Your task to perform on an android device: turn off sleep mode Image 0: 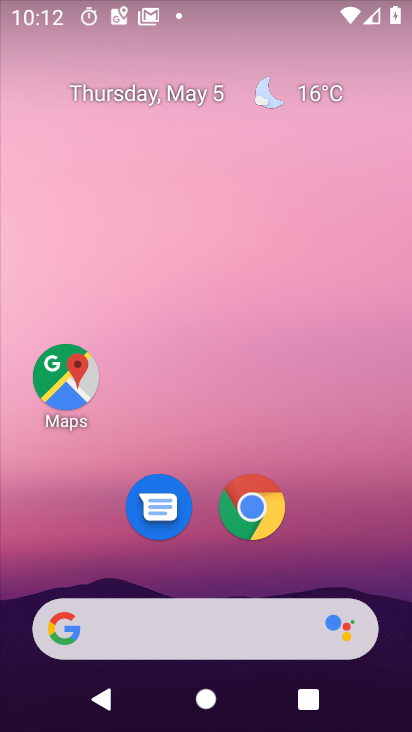
Step 0: drag from (202, 575) to (195, 214)
Your task to perform on an android device: turn off sleep mode Image 1: 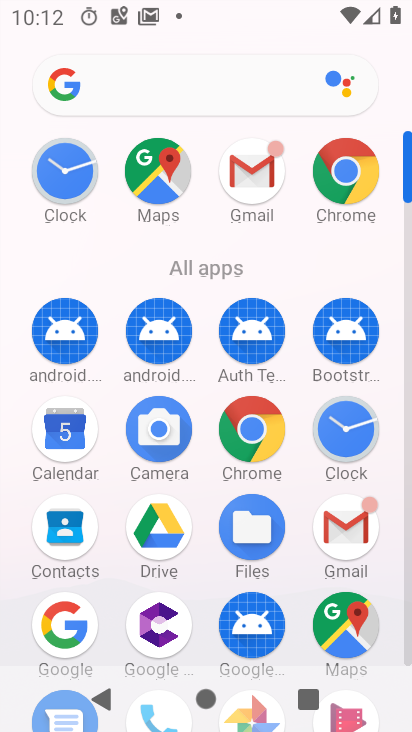
Step 1: drag from (197, 647) to (188, 225)
Your task to perform on an android device: turn off sleep mode Image 2: 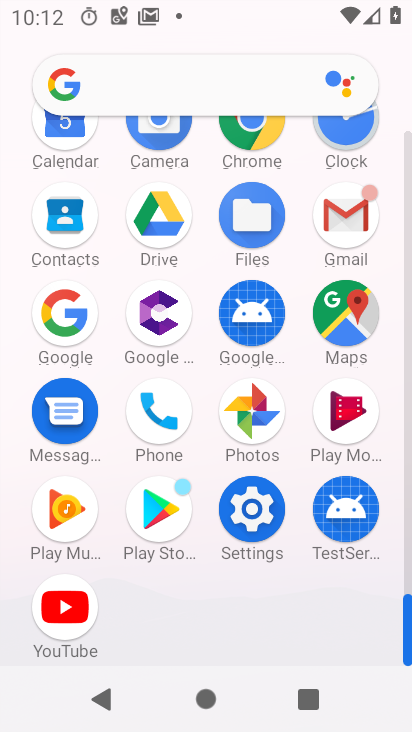
Step 2: click (253, 511)
Your task to perform on an android device: turn off sleep mode Image 3: 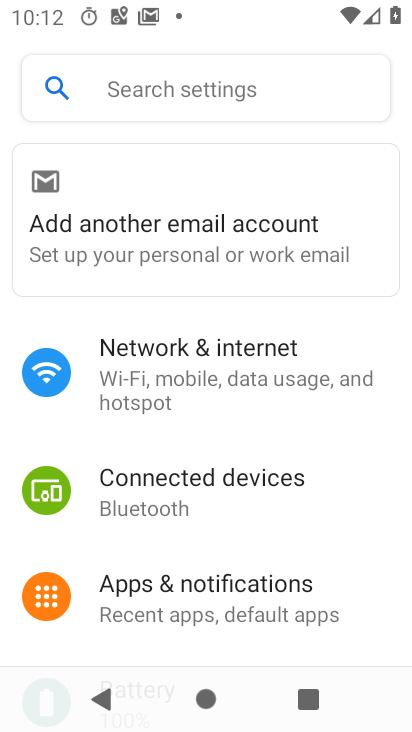
Step 3: drag from (180, 553) to (238, 256)
Your task to perform on an android device: turn off sleep mode Image 4: 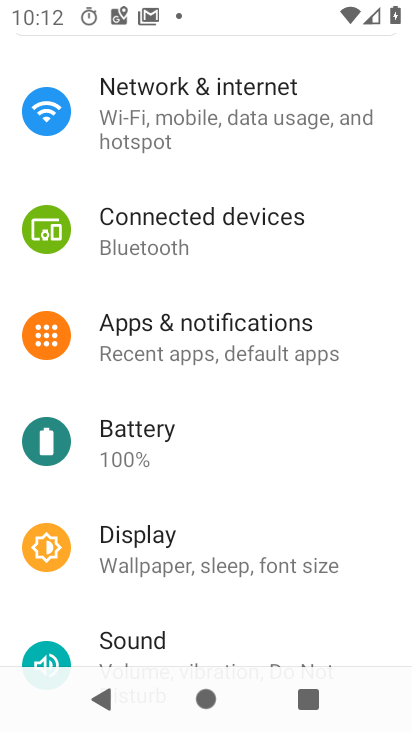
Step 4: click (197, 550)
Your task to perform on an android device: turn off sleep mode Image 5: 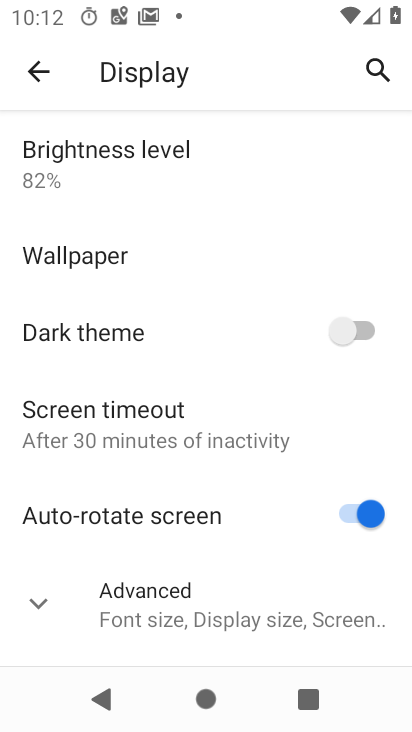
Step 5: task complete